Your task to perform on an android device: open chrome and create a bookmark for the current page Image 0: 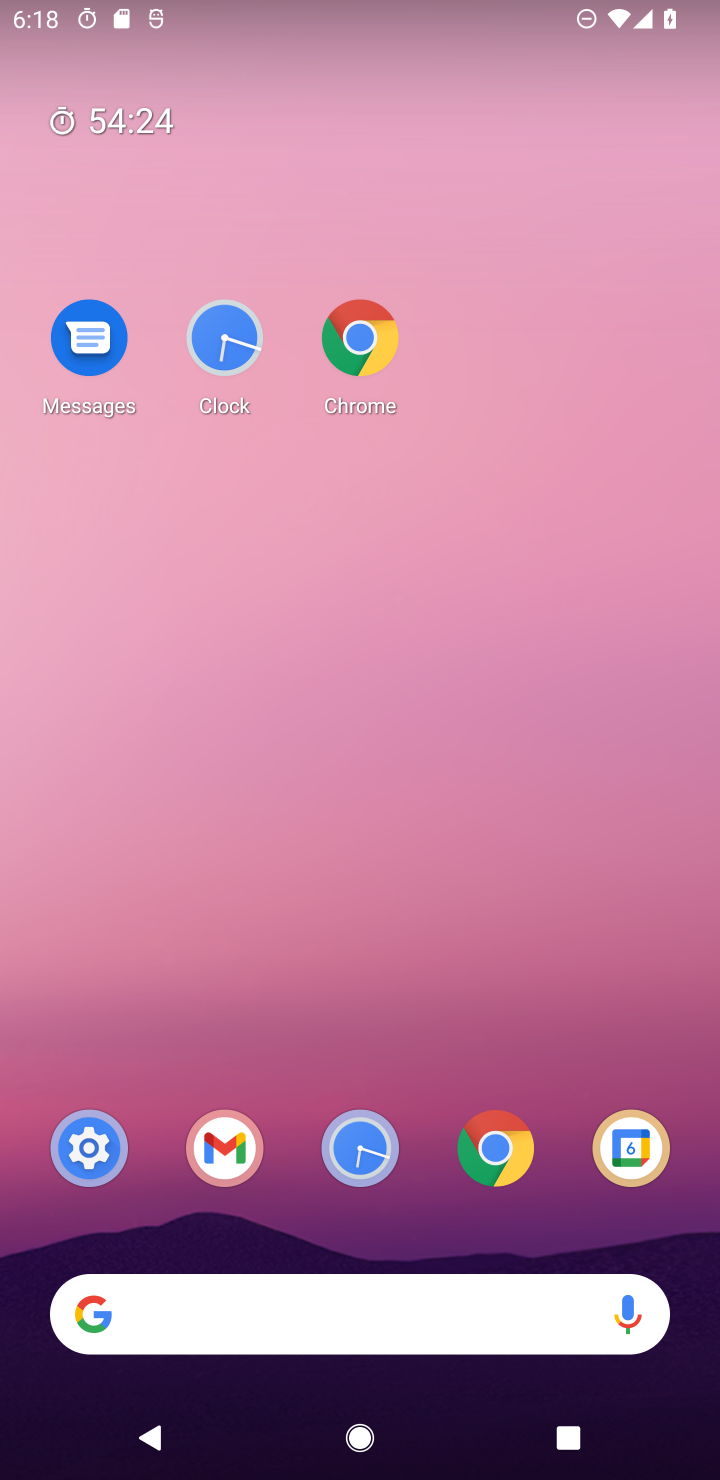
Step 0: drag from (442, 890) to (445, 295)
Your task to perform on an android device: open chrome and create a bookmark for the current page Image 1: 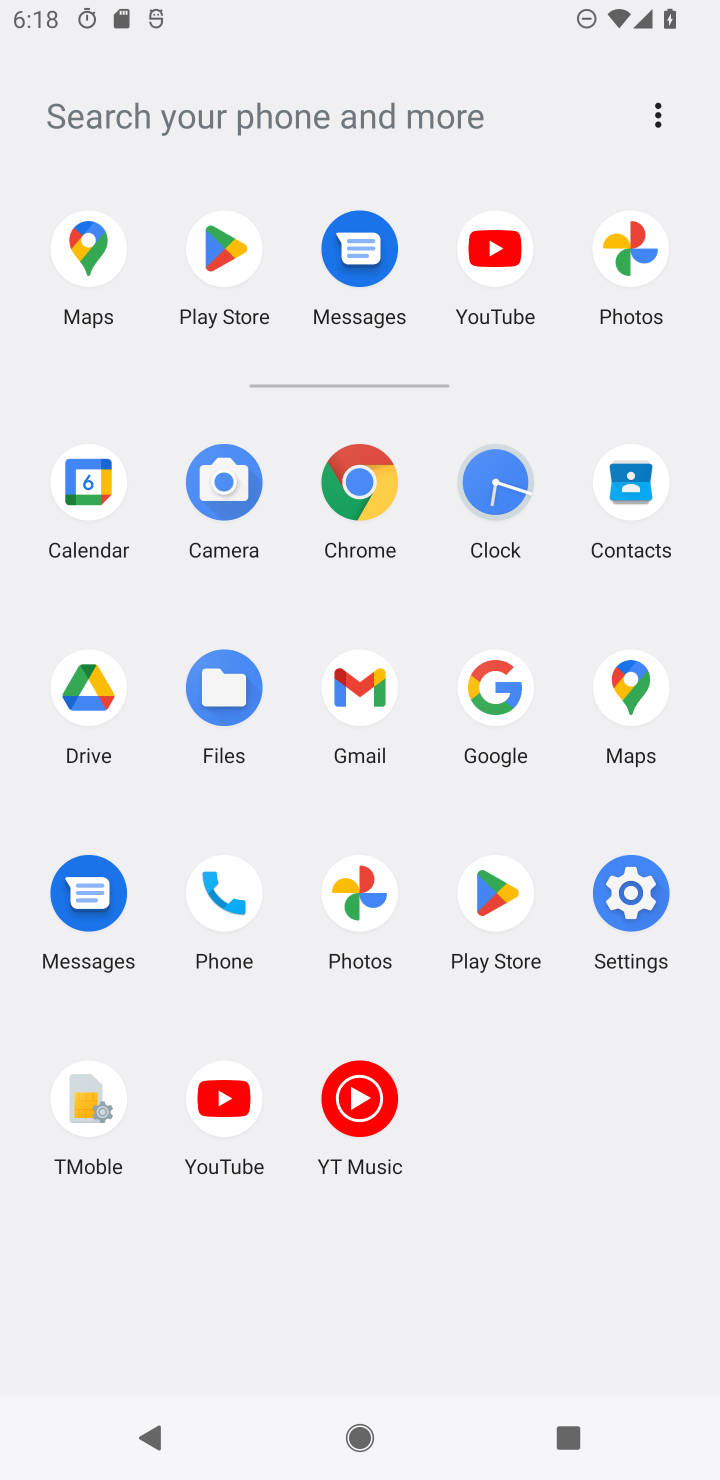
Step 1: click (355, 480)
Your task to perform on an android device: open chrome and create a bookmark for the current page Image 2: 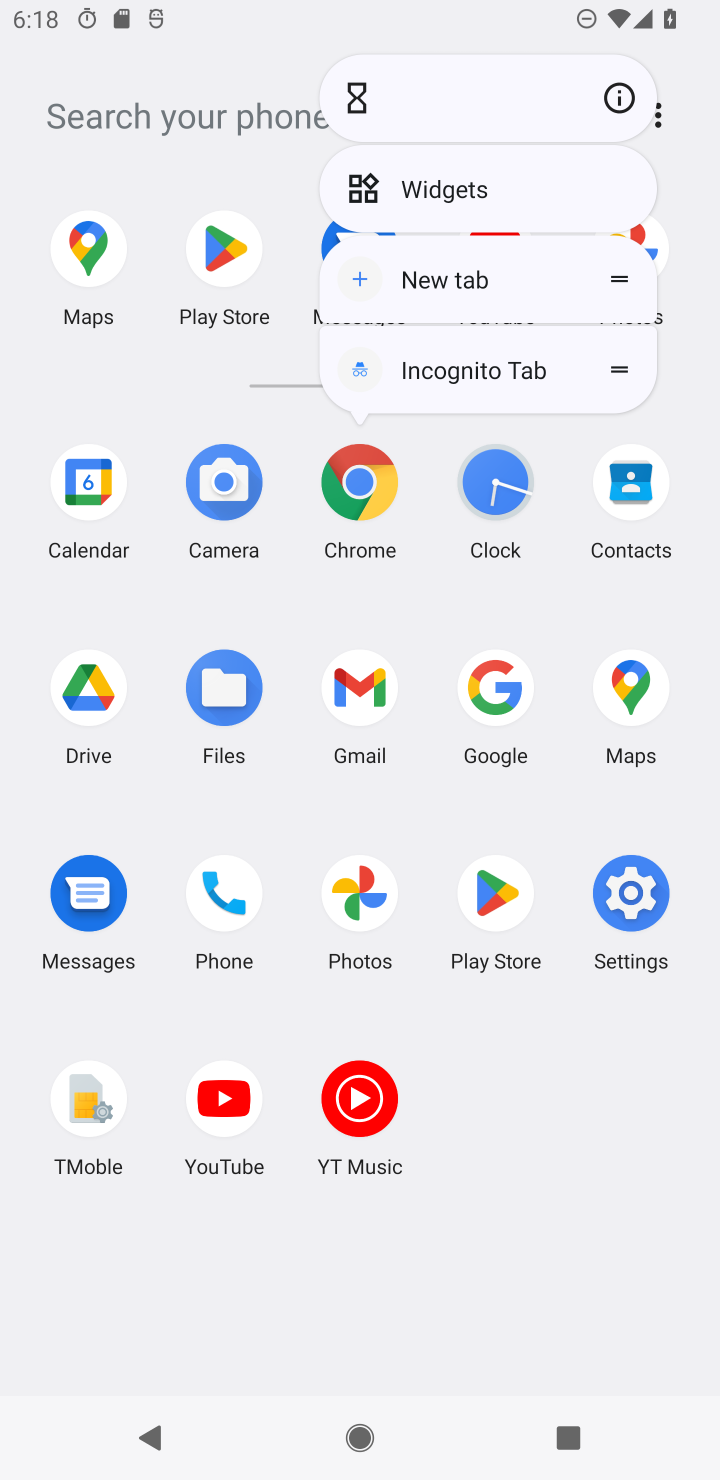
Step 2: click (612, 99)
Your task to perform on an android device: open chrome and create a bookmark for the current page Image 3: 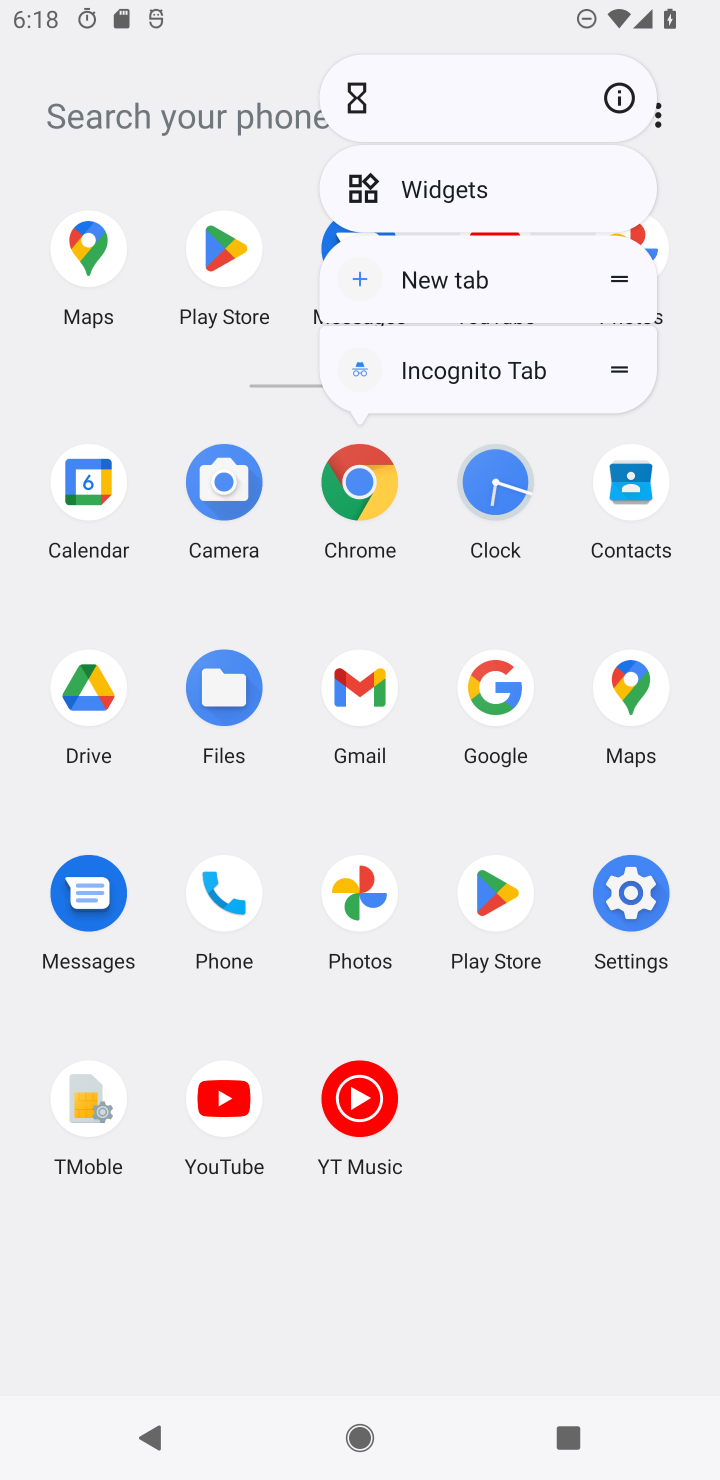
Step 3: click (612, 89)
Your task to perform on an android device: open chrome and create a bookmark for the current page Image 4: 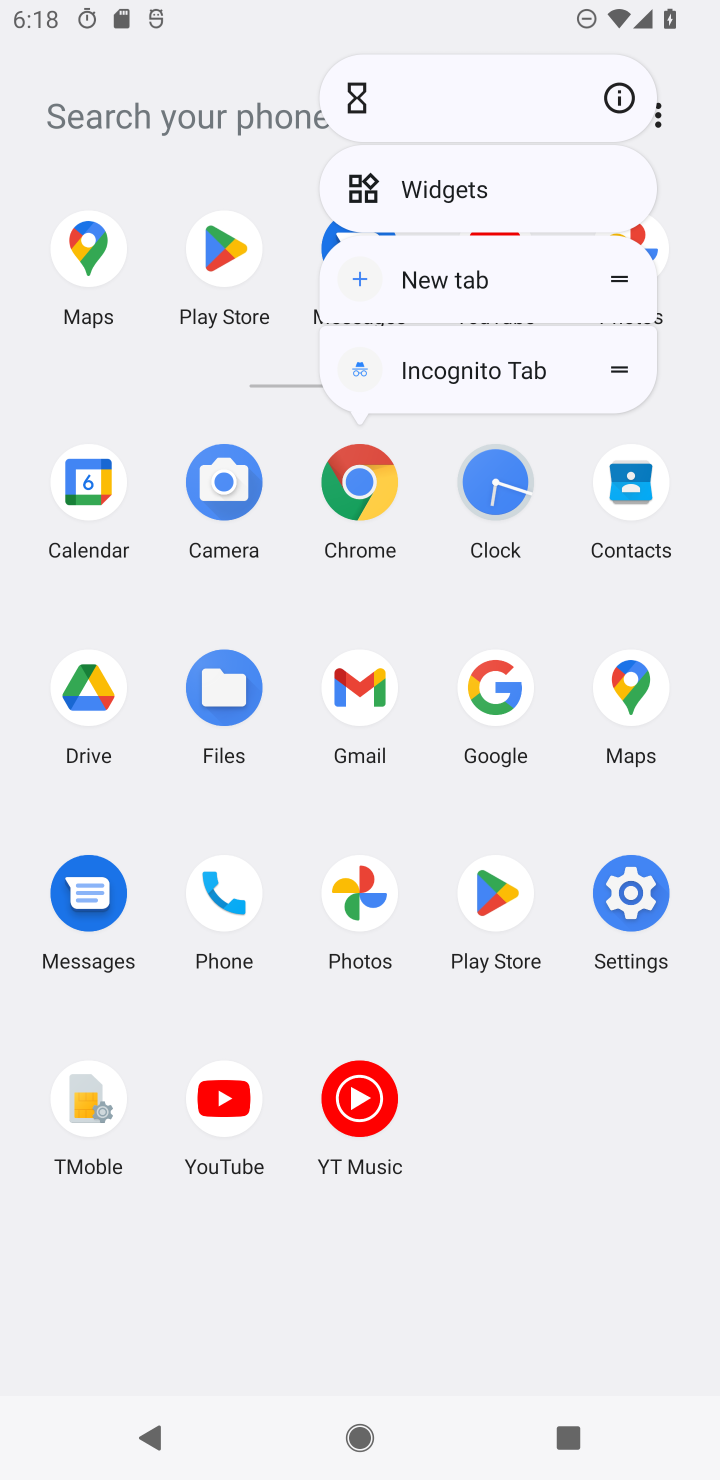
Step 4: click (343, 464)
Your task to perform on an android device: open chrome and create a bookmark for the current page Image 5: 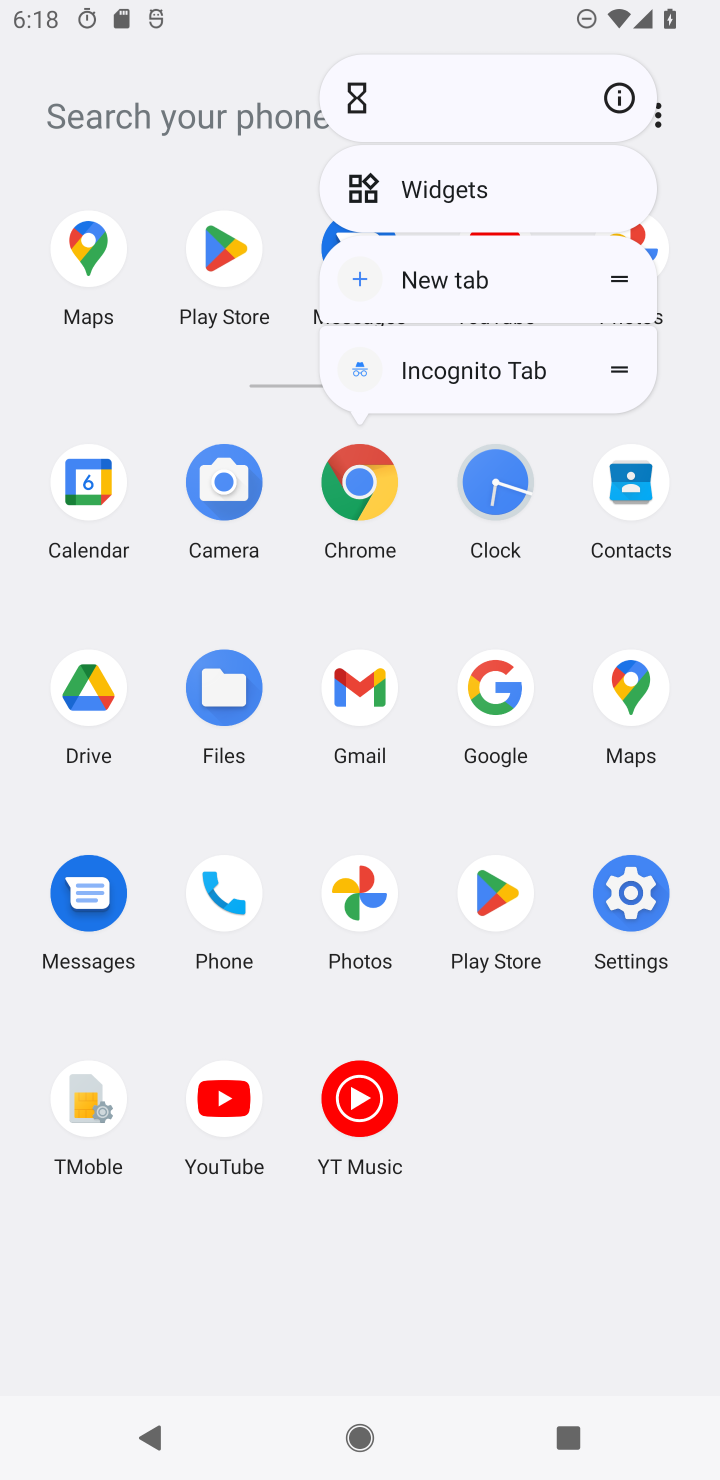
Step 5: click (347, 473)
Your task to perform on an android device: open chrome and create a bookmark for the current page Image 6: 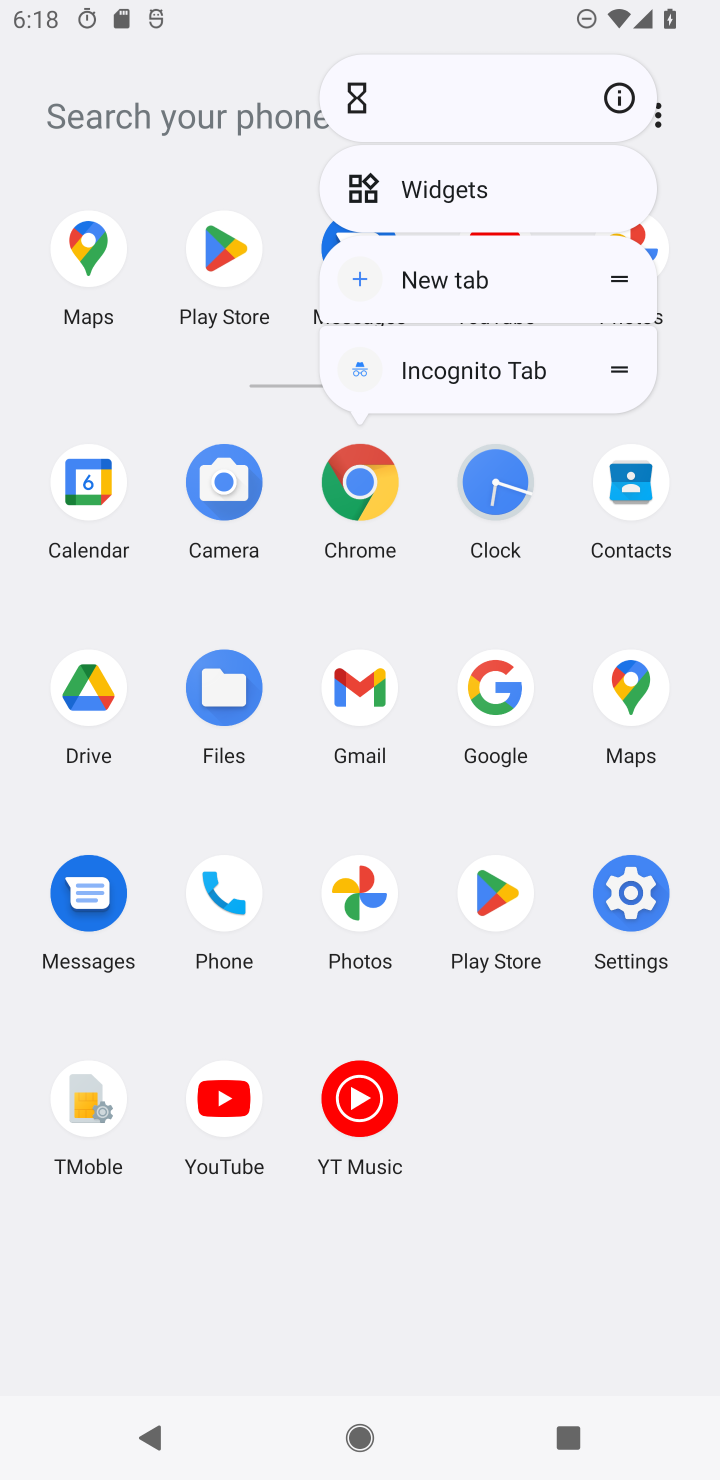
Step 6: click (334, 466)
Your task to perform on an android device: open chrome and create a bookmark for the current page Image 7: 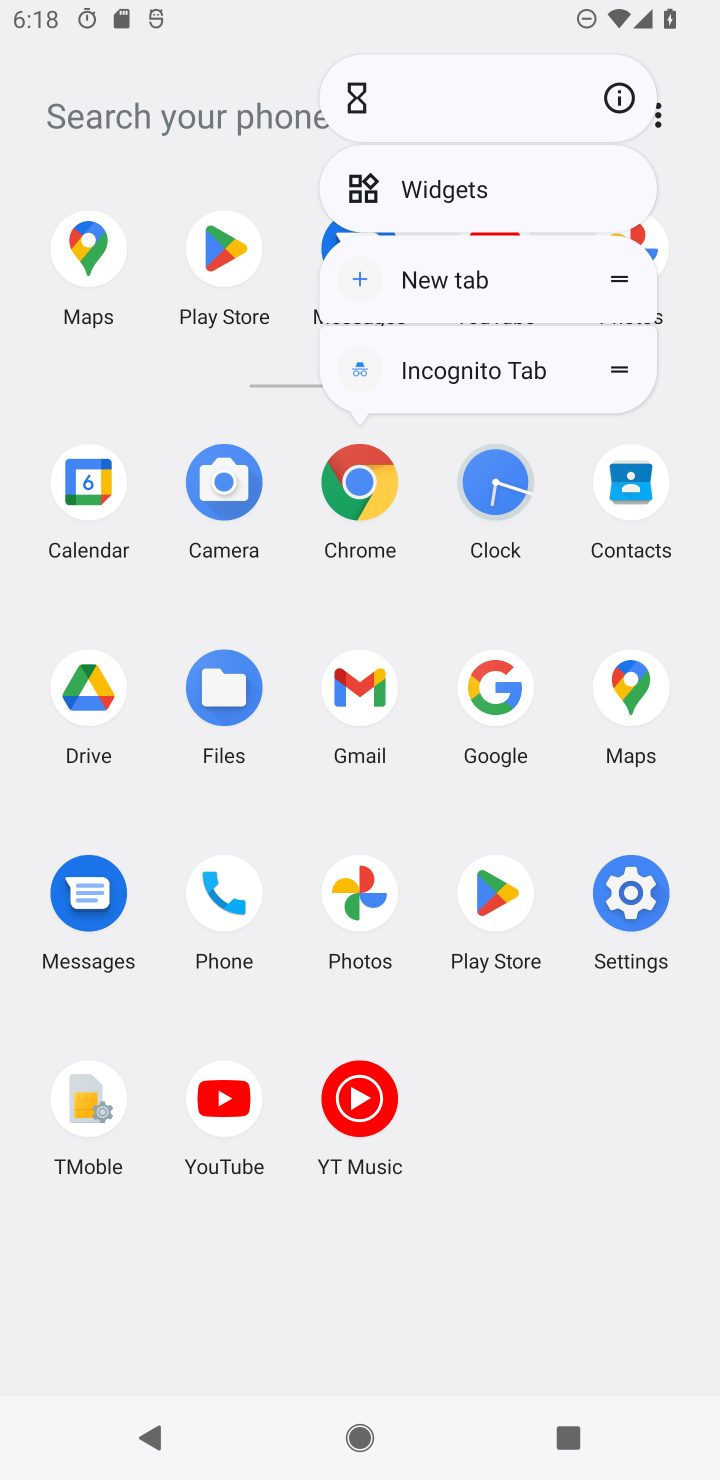
Step 7: click (349, 460)
Your task to perform on an android device: open chrome and create a bookmark for the current page Image 8: 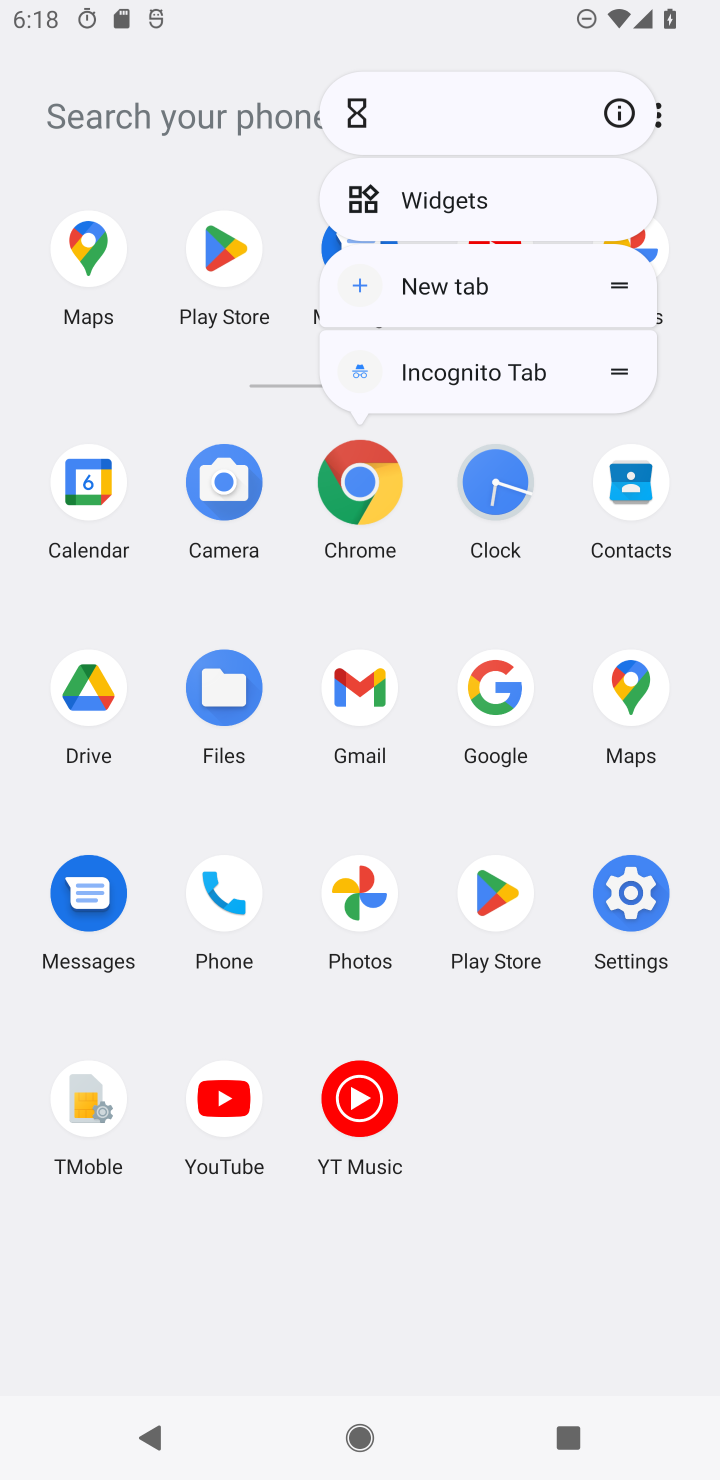
Step 8: click (349, 460)
Your task to perform on an android device: open chrome and create a bookmark for the current page Image 9: 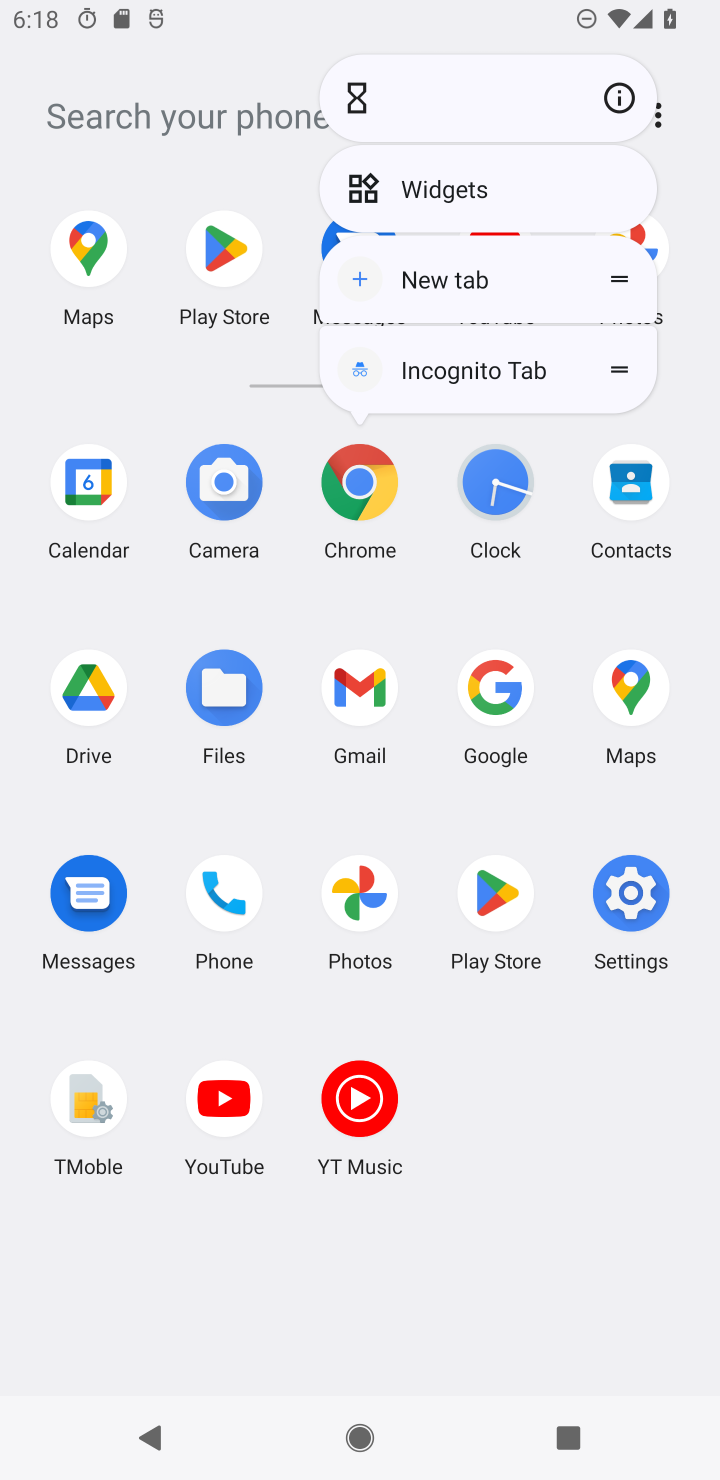
Step 9: click (334, 476)
Your task to perform on an android device: open chrome and create a bookmark for the current page Image 10: 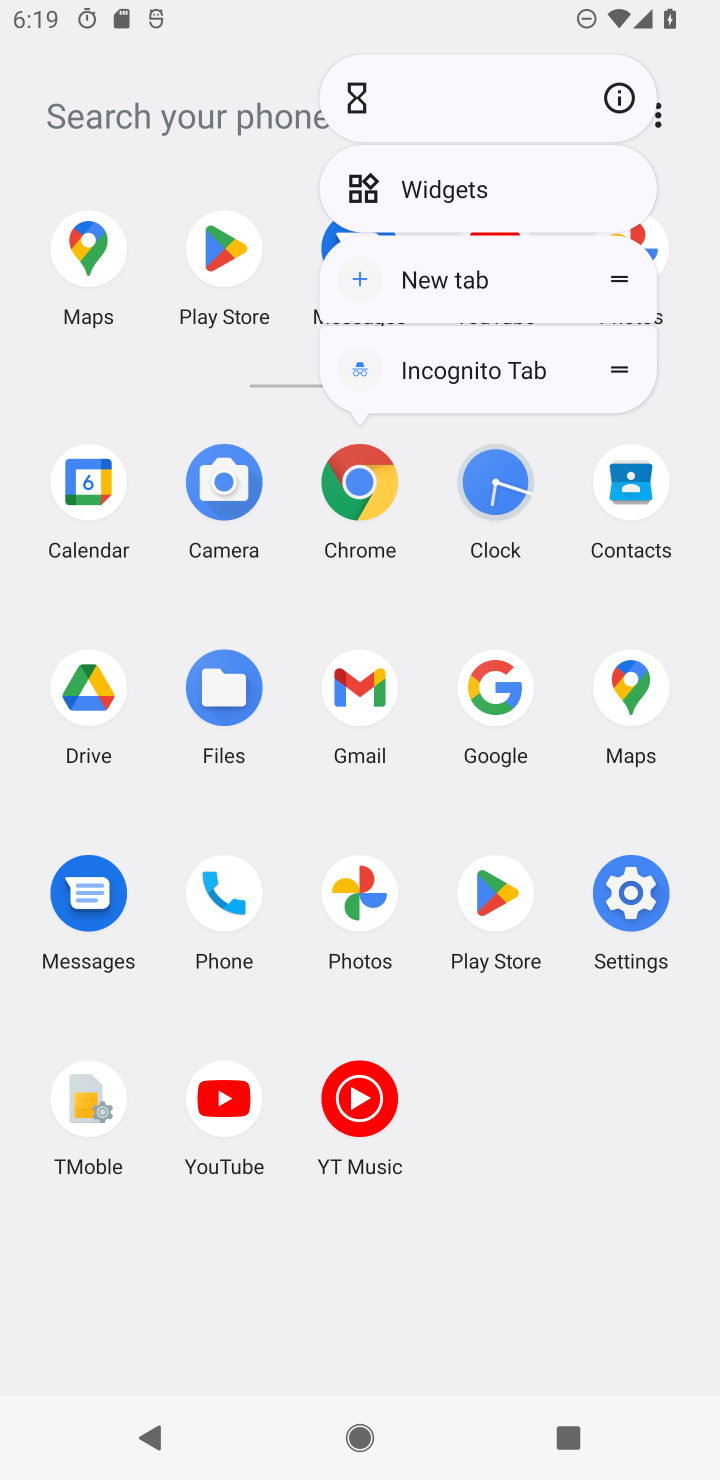
Step 10: click (353, 457)
Your task to perform on an android device: open chrome and create a bookmark for the current page Image 11: 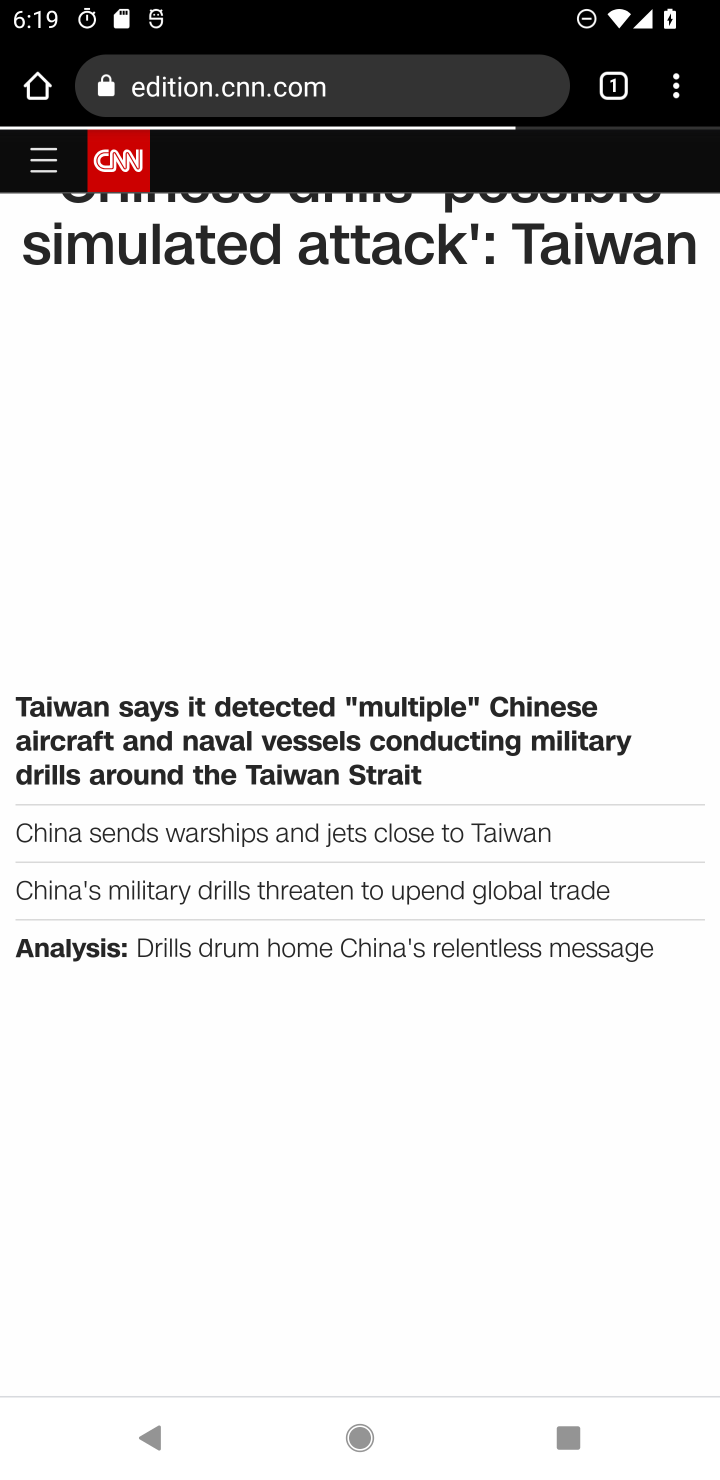
Step 11: drag from (682, 80) to (215, 332)
Your task to perform on an android device: open chrome and create a bookmark for the current page Image 12: 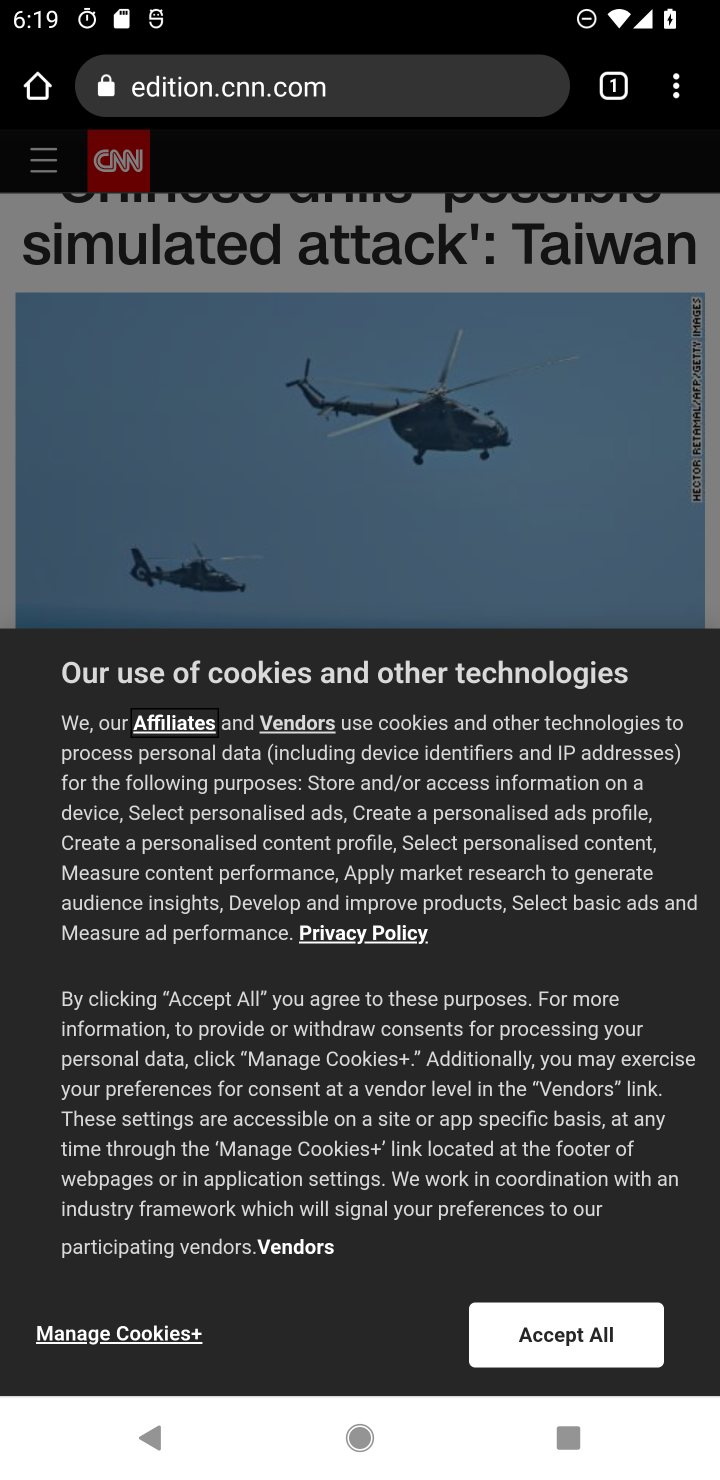
Step 12: click (216, 132)
Your task to perform on an android device: open chrome and create a bookmark for the current page Image 13: 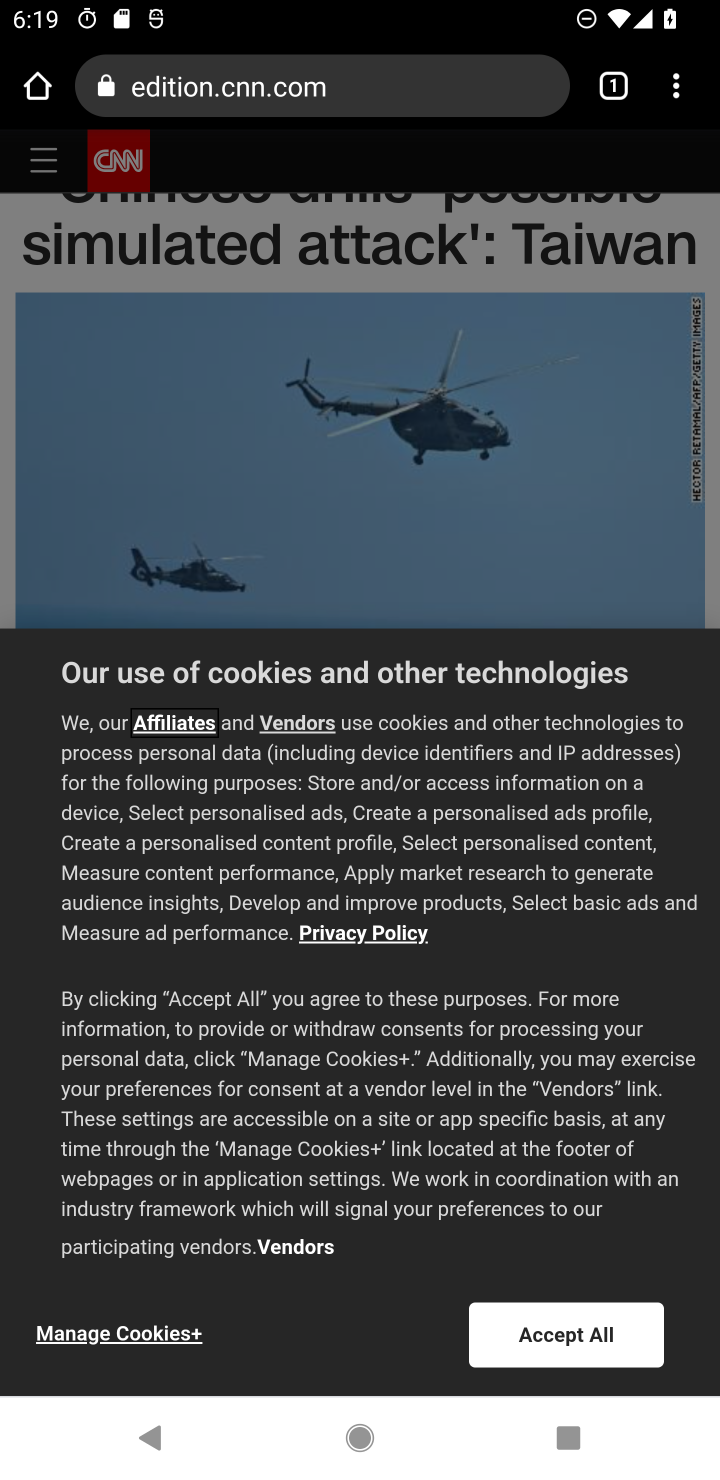
Step 13: task complete